Your task to perform on an android device: turn off picture-in-picture Image 0: 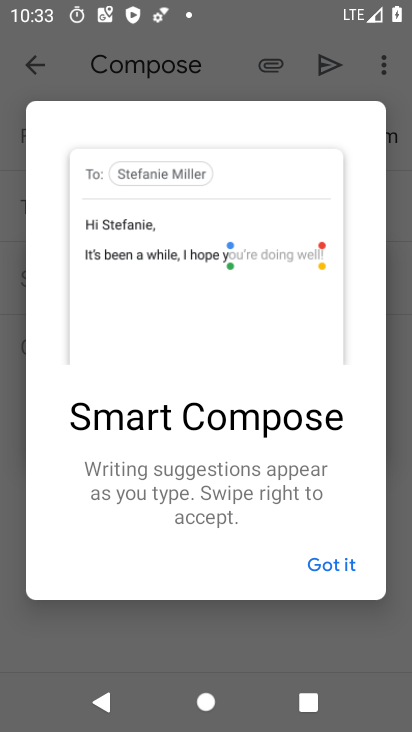
Step 0: press home button
Your task to perform on an android device: turn off picture-in-picture Image 1: 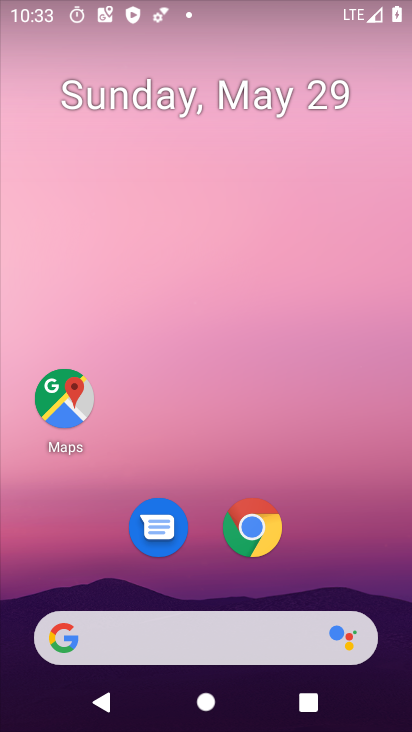
Step 1: click (255, 527)
Your task to perform on an android device: turn off picture-in-picture Image 2: 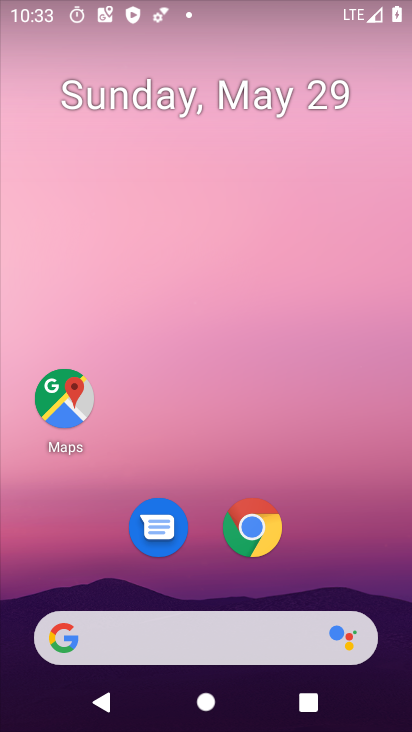
Step 2: click (252, 515)
Your task to perform on an android device: turn off picture-in-picture Image 3: 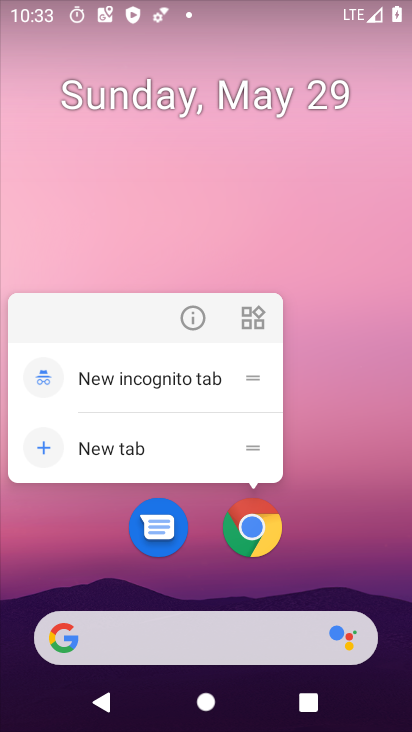
Step 3: click (199, 317)
Your task to perform on an android device: turn off picture-in-picture Image 4: 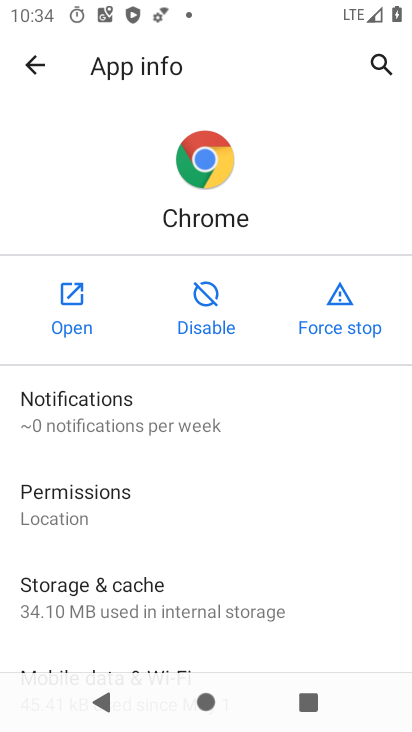
Step 4: drag from (178, 595) to (185, 200)
Your task to perform on an android device: turn off picture-in-picture Image 5: 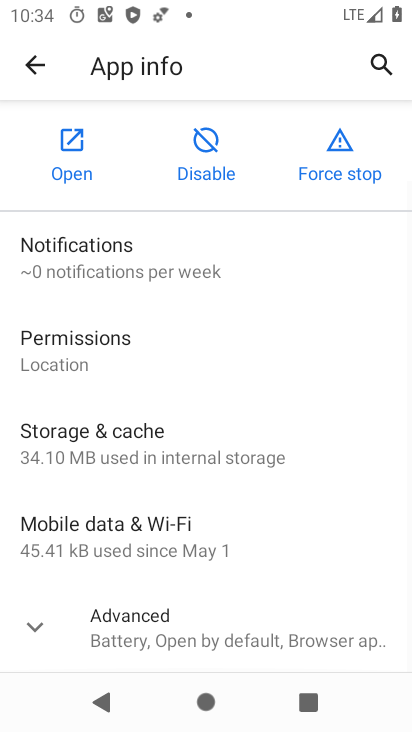
Step 5: click (122, 633)
Your task to perform on an android device: turn off picture-in-picture Image 6: 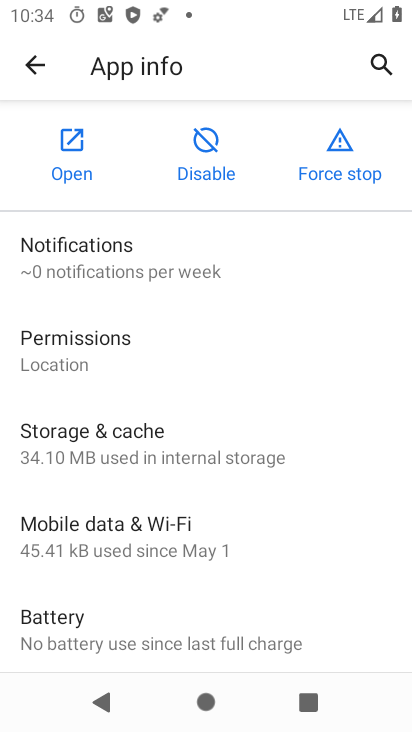
Step 6: drag from (221, 638) to (267, 244)
Your task to perform on an android device: turn off picture-in-picture Image 7: 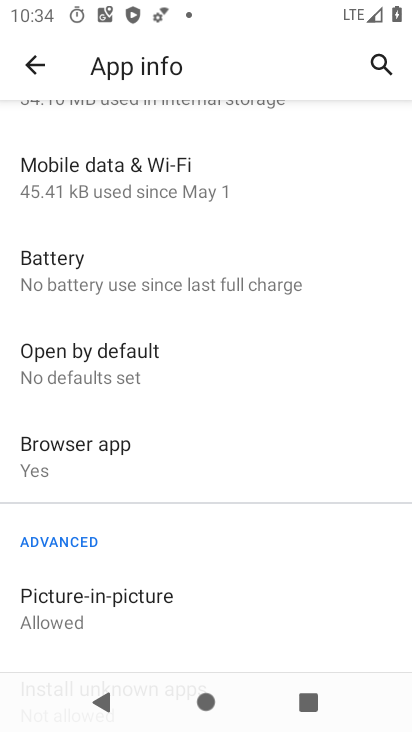
Step 7: click (138, 605)
Your task to perform on an android device: turn off picture-in-picture Image 8: 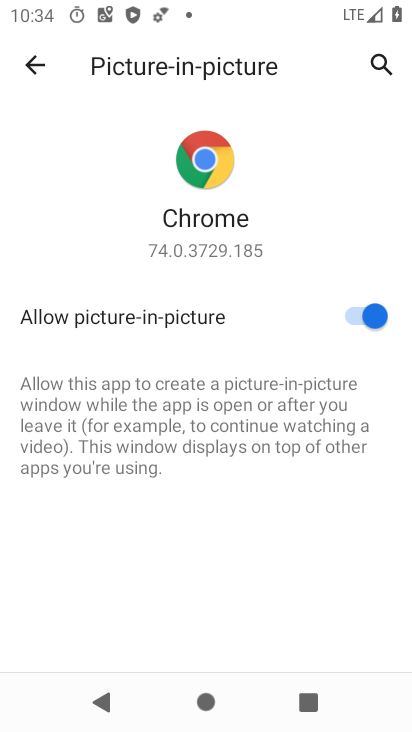
Step 8: click (353, 314)
Your task to perform on an android device: turn off picture-in-picture Image 9: 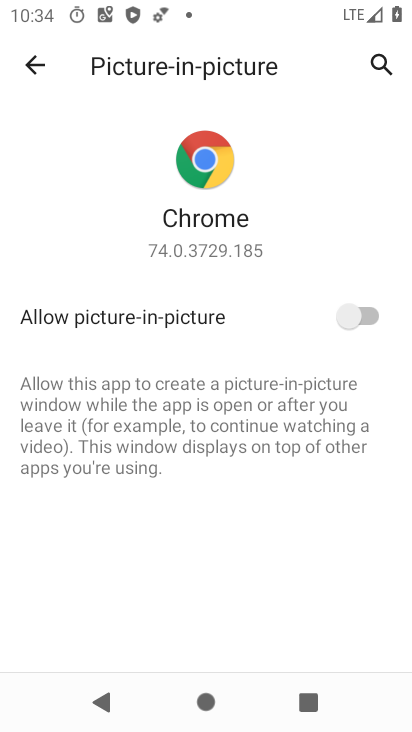
Step 9: task complete